Your task to perform on an android device: toggle wifi Image 0: 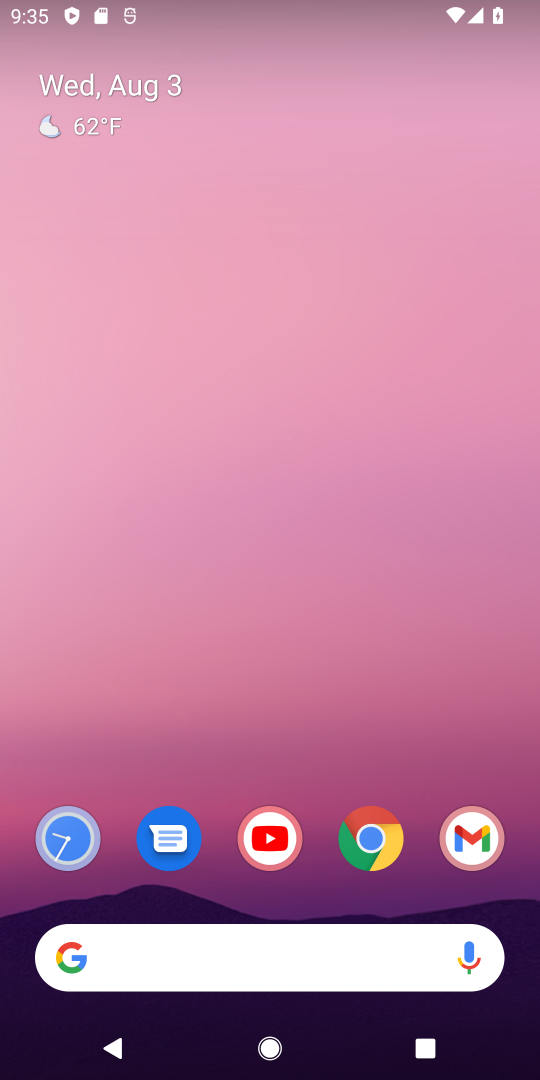
Step 0: drag from (330, 376) to (306, 207)
Your task to perform on an android device: toggle wifi Image 1: 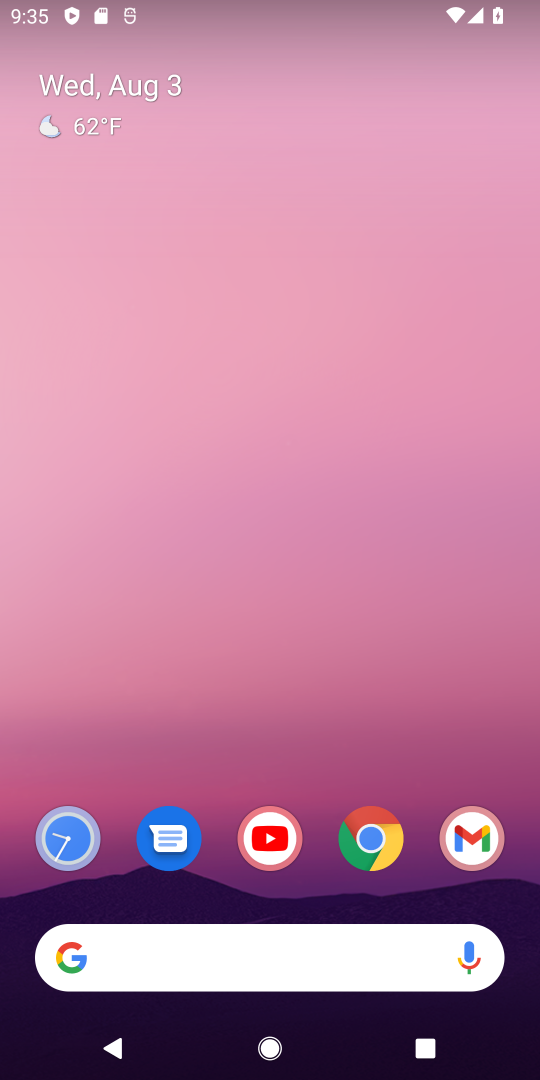
Step 1: drag from (247, 968) to (162, 188)
Your task to perform on an android device: toggle wifi Image 2: 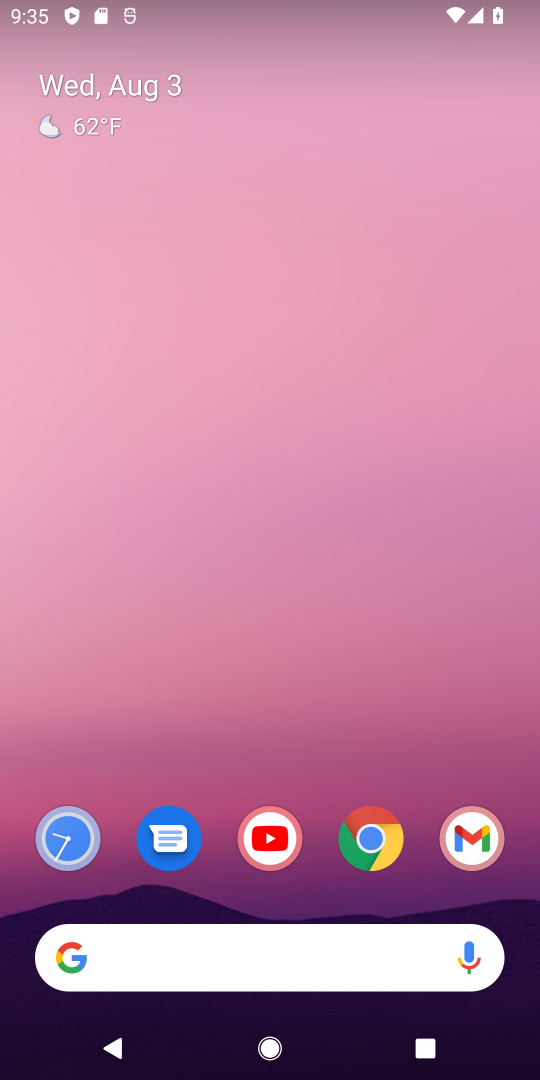
Step 2: click (218, 217)
Your task to perform on an android device: toggle wifi Image 3: 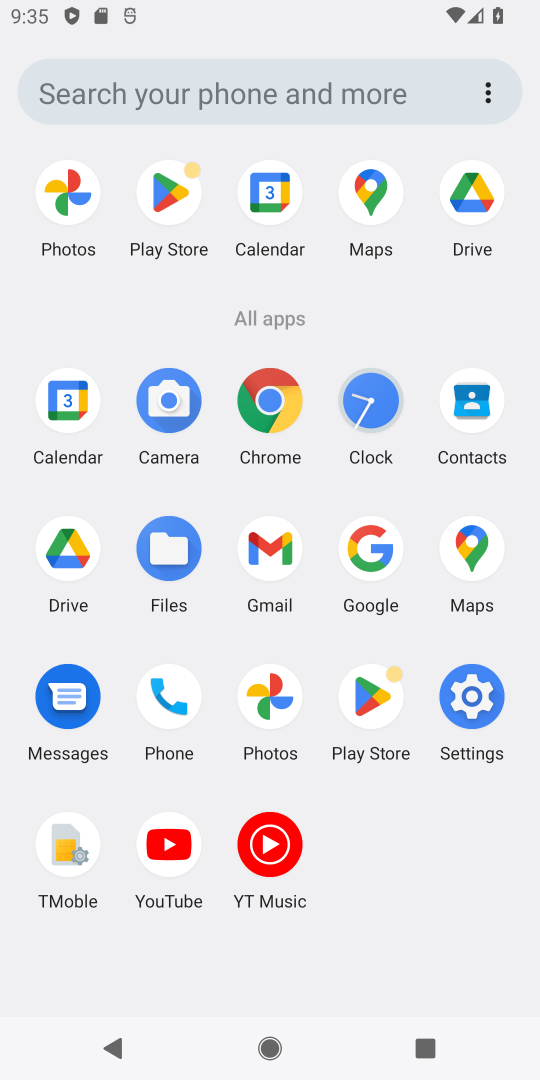
Step 3: drag from (274, 870) to (241, 438)
Your task to perform on an android device: toggle wifi Image 4: 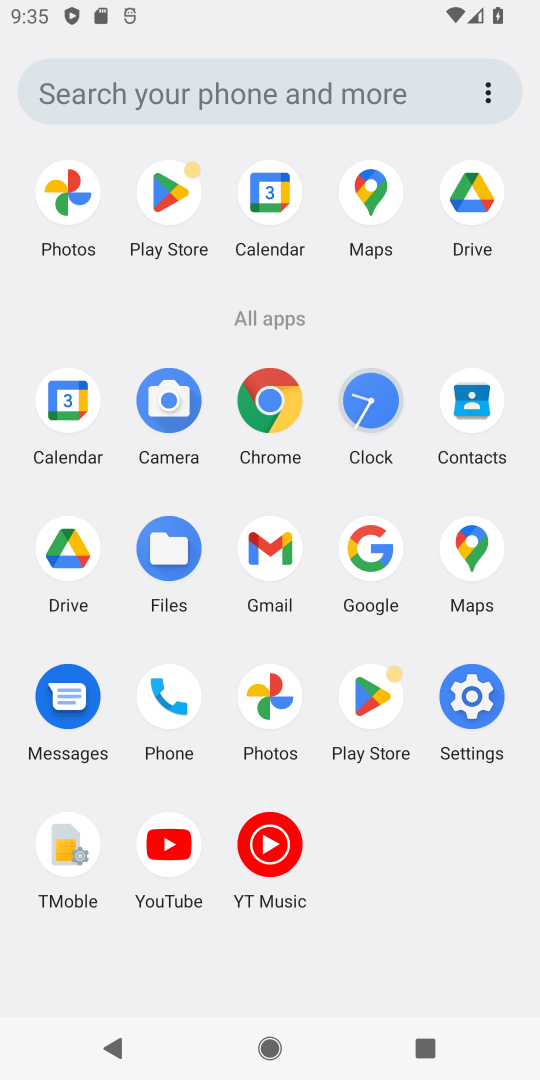
Step 4: click (458, 707)
Your task to perform on an android device: toggle wifi Image 5: 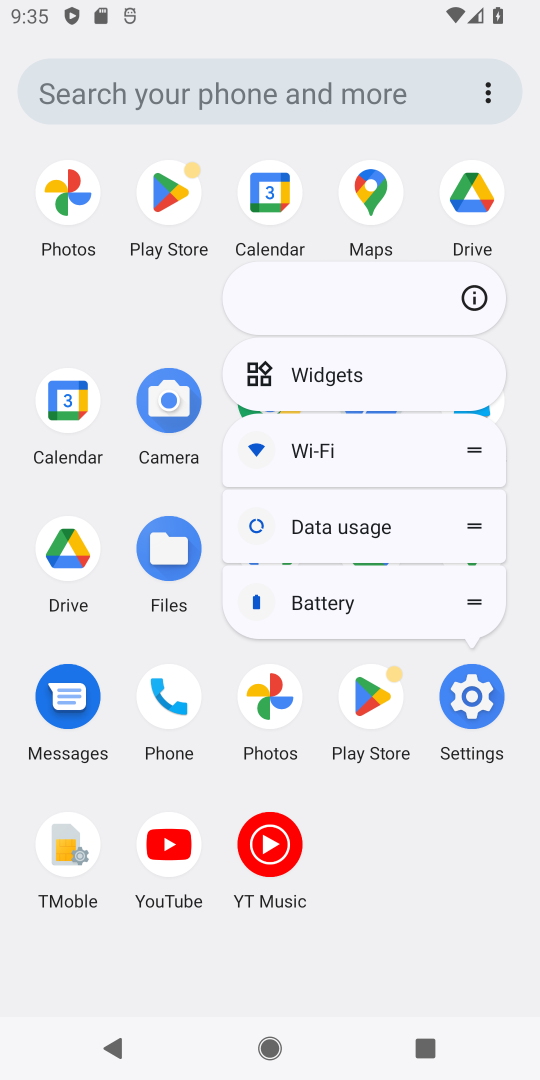
Step 5: click (458, 707)
Your task to perform on an android device: toggle wifi Image 6: 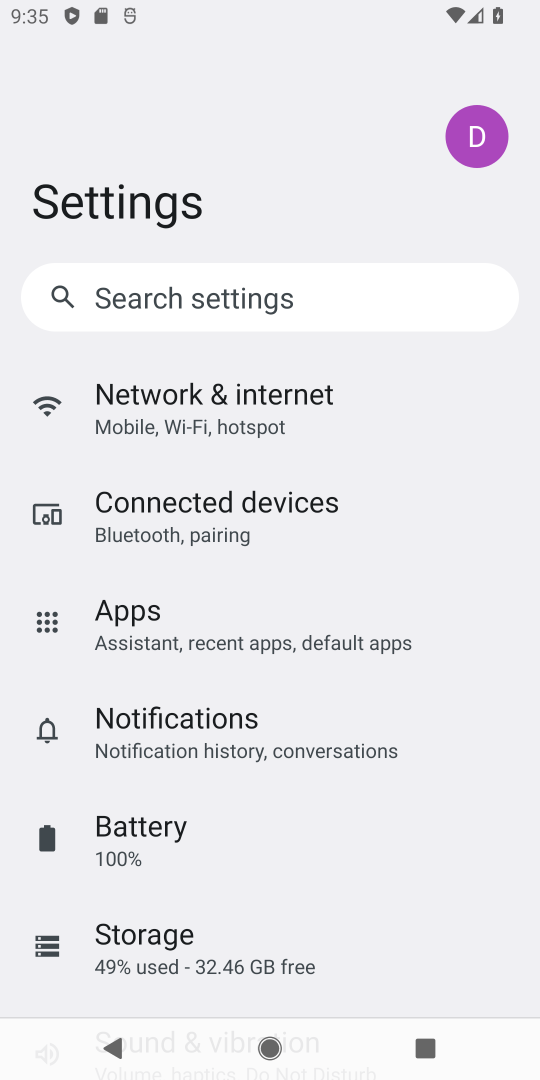
Step 6: click (205, 402)
Your task to perform on an android device: toggle wifi Image 7: 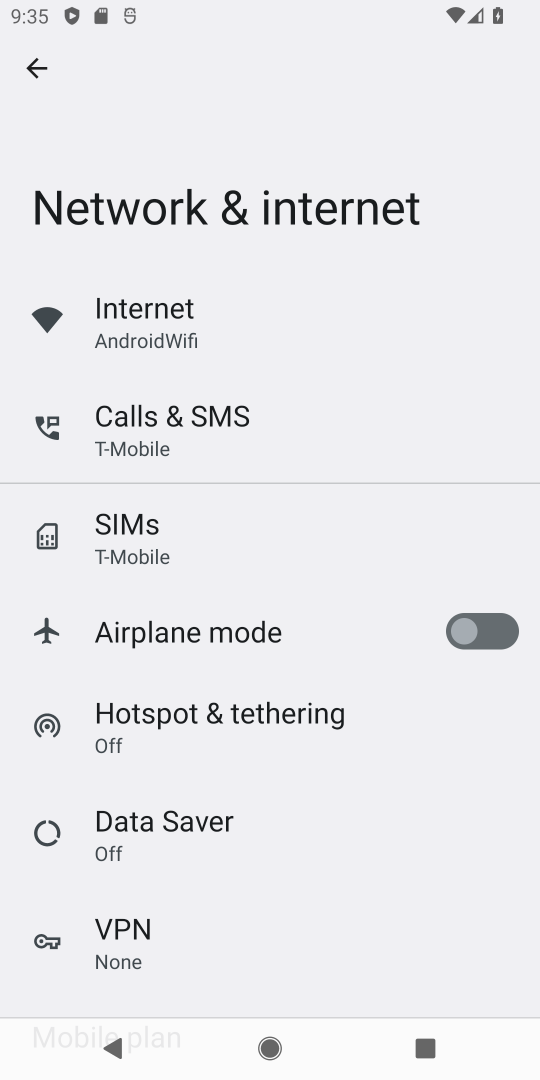
Step 7: click (116, 326)
Your task to perform on an android device: toggle wifi Image 8: 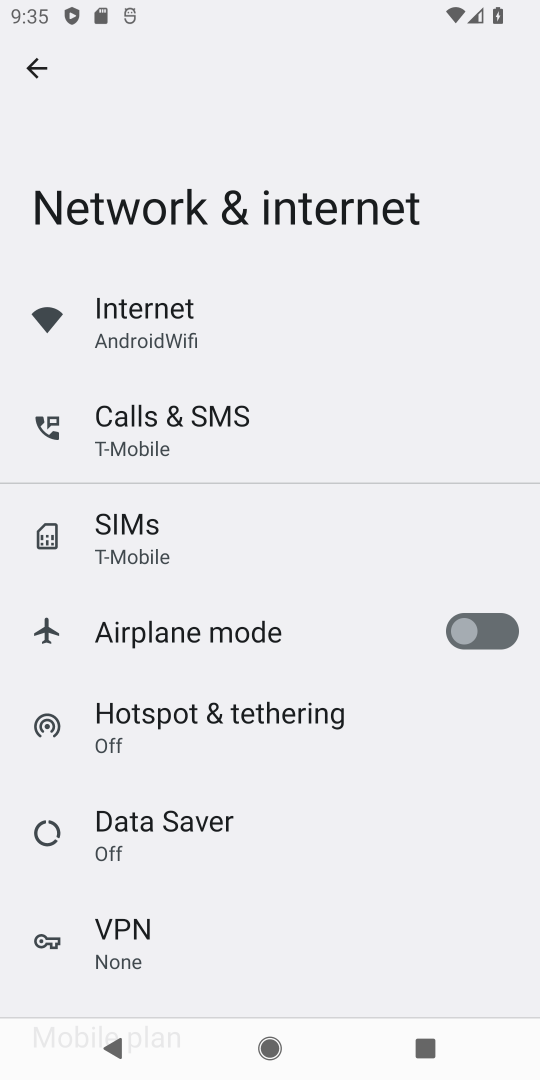
Step 8: click (118, 328)
Your task to perform on an android device: toggle wifi Image 9: 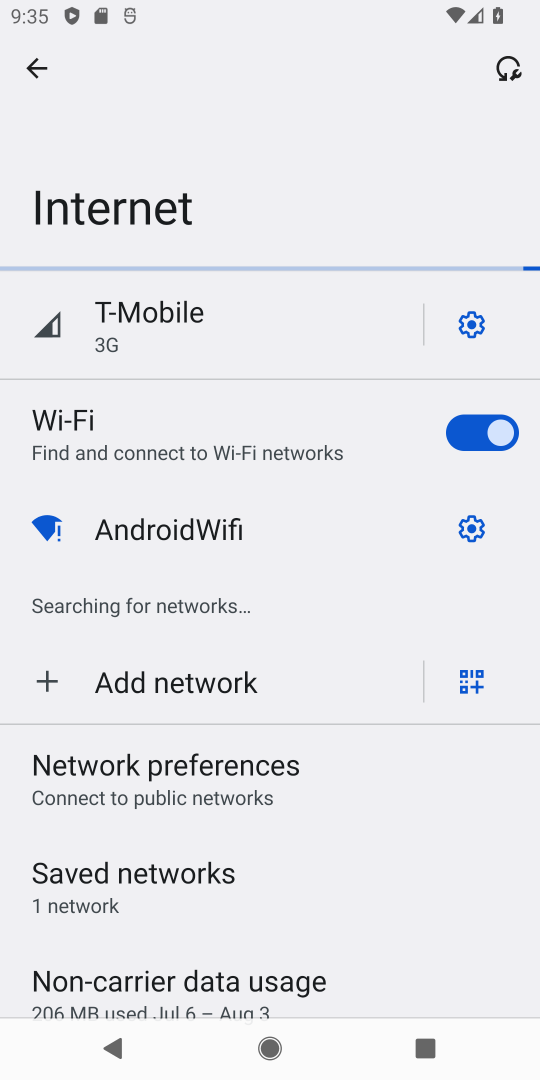
Step 9: click (500, 442)
Your task to perform on an android device: toggle wifi Image 10: 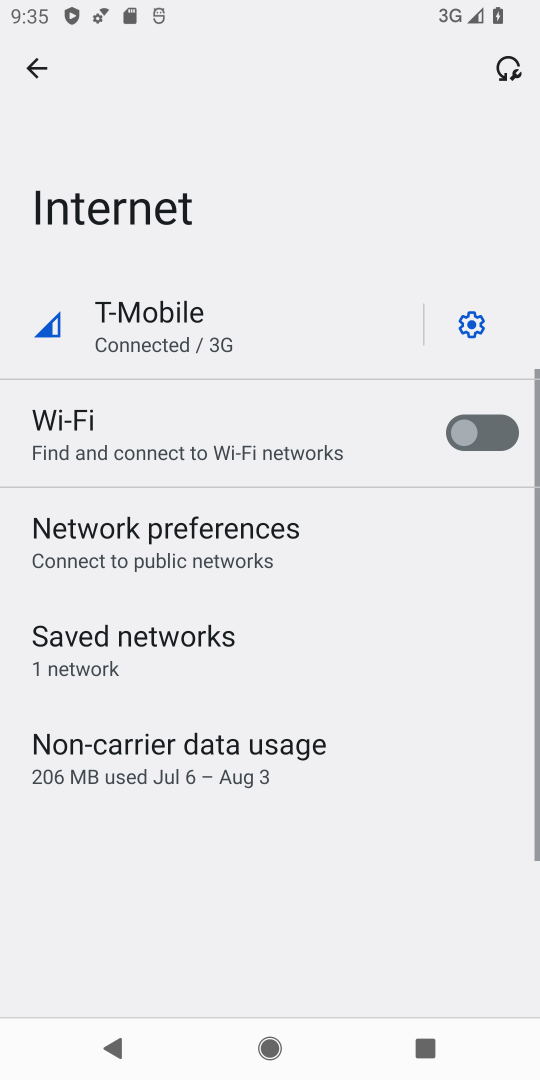
Step 10: task complete